Your task to perform on an android device: change the upload size in google photos Image 0: 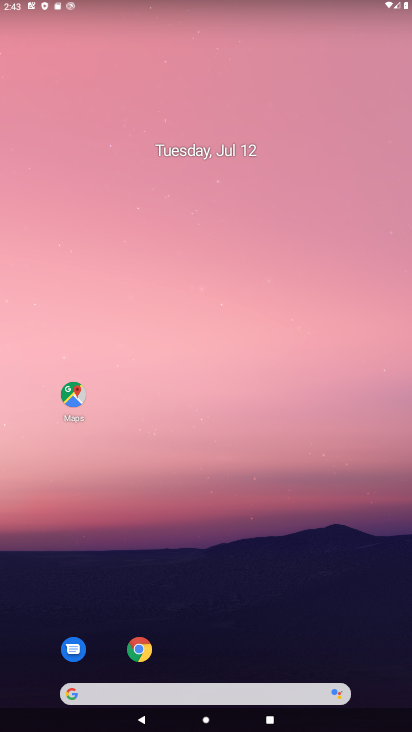
Step 0: drag from (256, 626) to (233, 30)
Your task to perform on an android device: change the upload size in google photos Image 1: 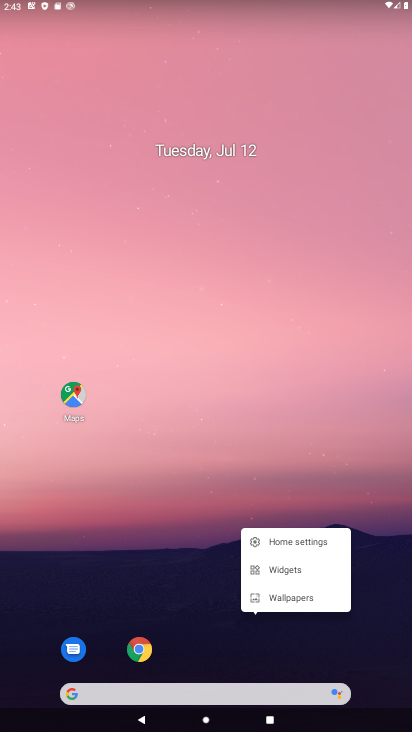
Step 1: click (225, 348)
Your task to perform on an android device: change the upload size in google photos Image 2: 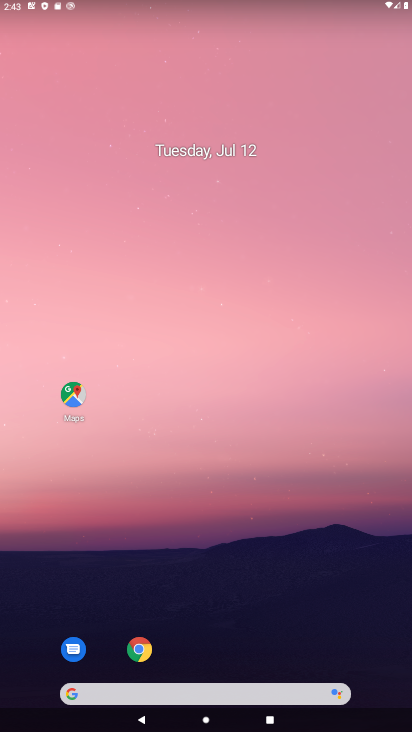
Step 2: drag from (239, 623) to (231, 19)
Your task to perform on an android device: change the upload size in google photos Image 3: 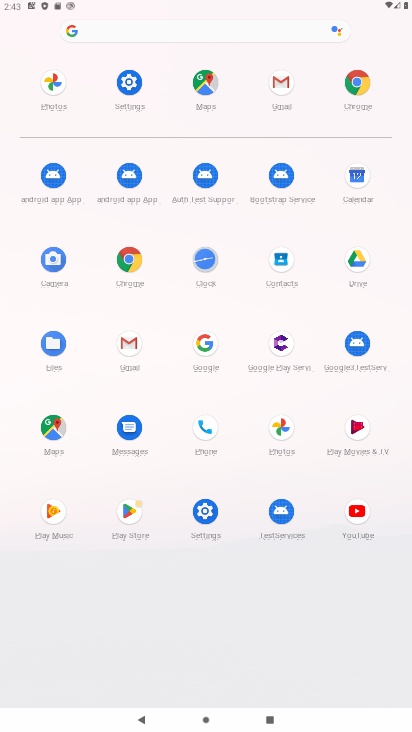
Step 3: click (40, 98)
Your task to perform on an android device: change the upload size in google photos Image 4: 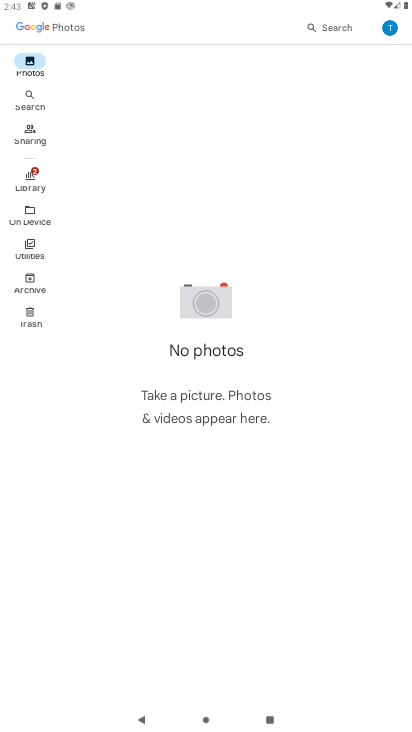
Step 4: click (382, 28)
Your task to perform on an android device: change the upload size in google photos Image 5: 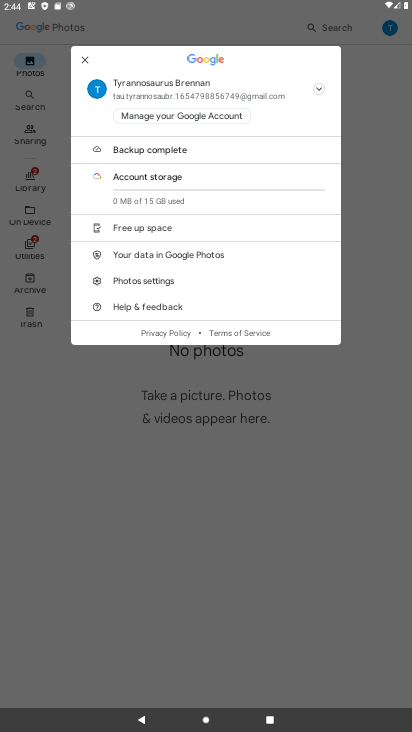
Step 5: click (169, 272)
Your task to perform on an android device: change the upload size in google photos Image 6: 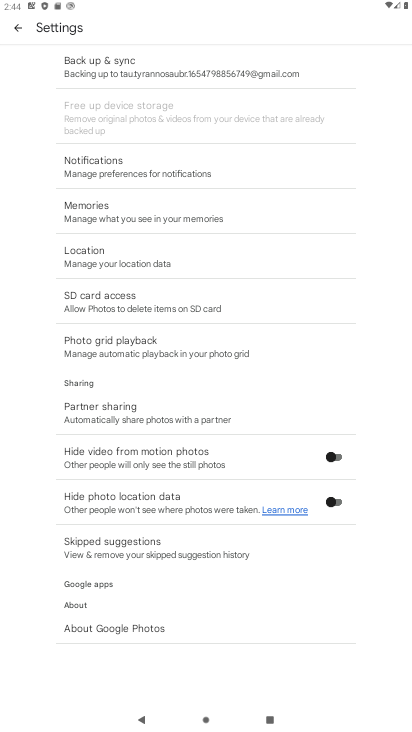
Step 6: task complete